Your task to perform on an android device: turn on sleep mode Image 0: 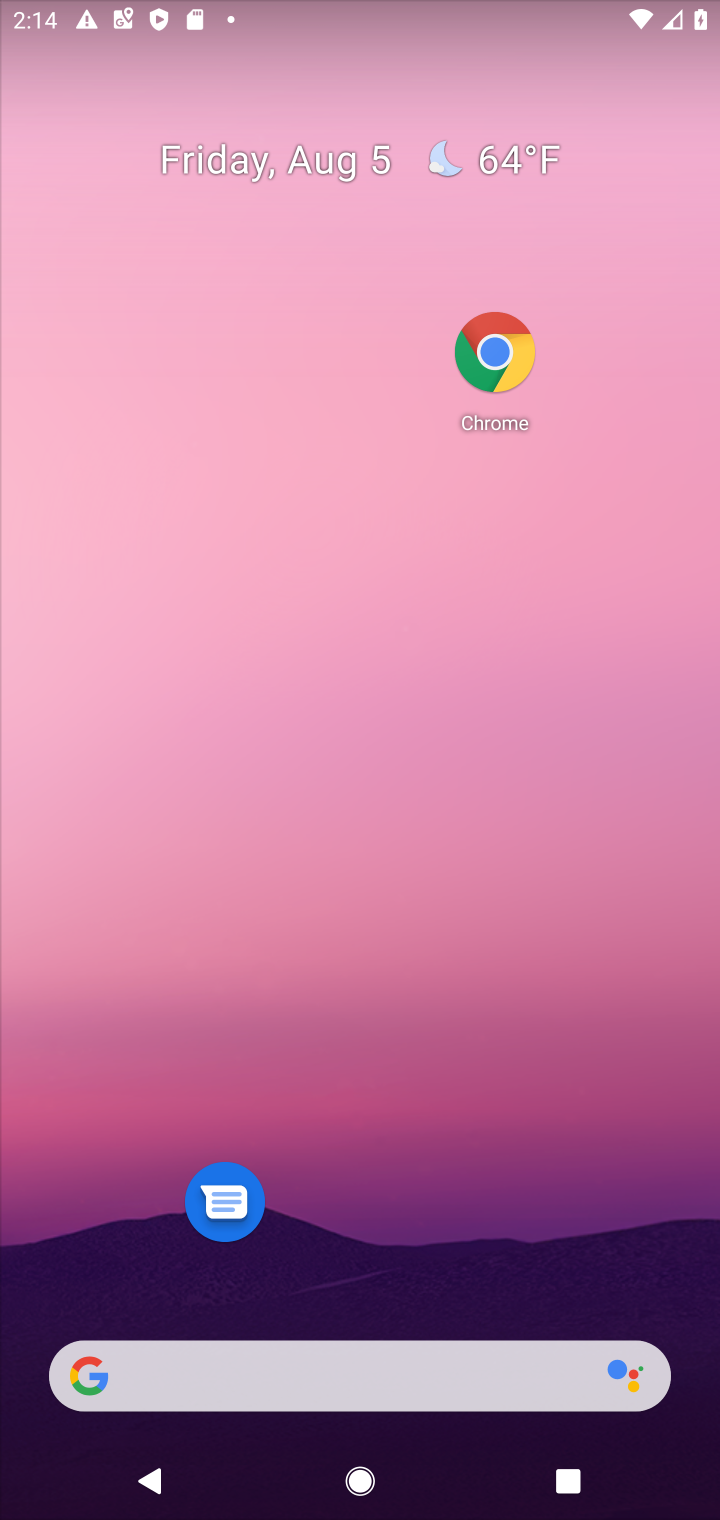
Step 0: drag from (587, 1203) to (488, 83)
Your task to perform on an android device: turn on sleep mode Image 1: 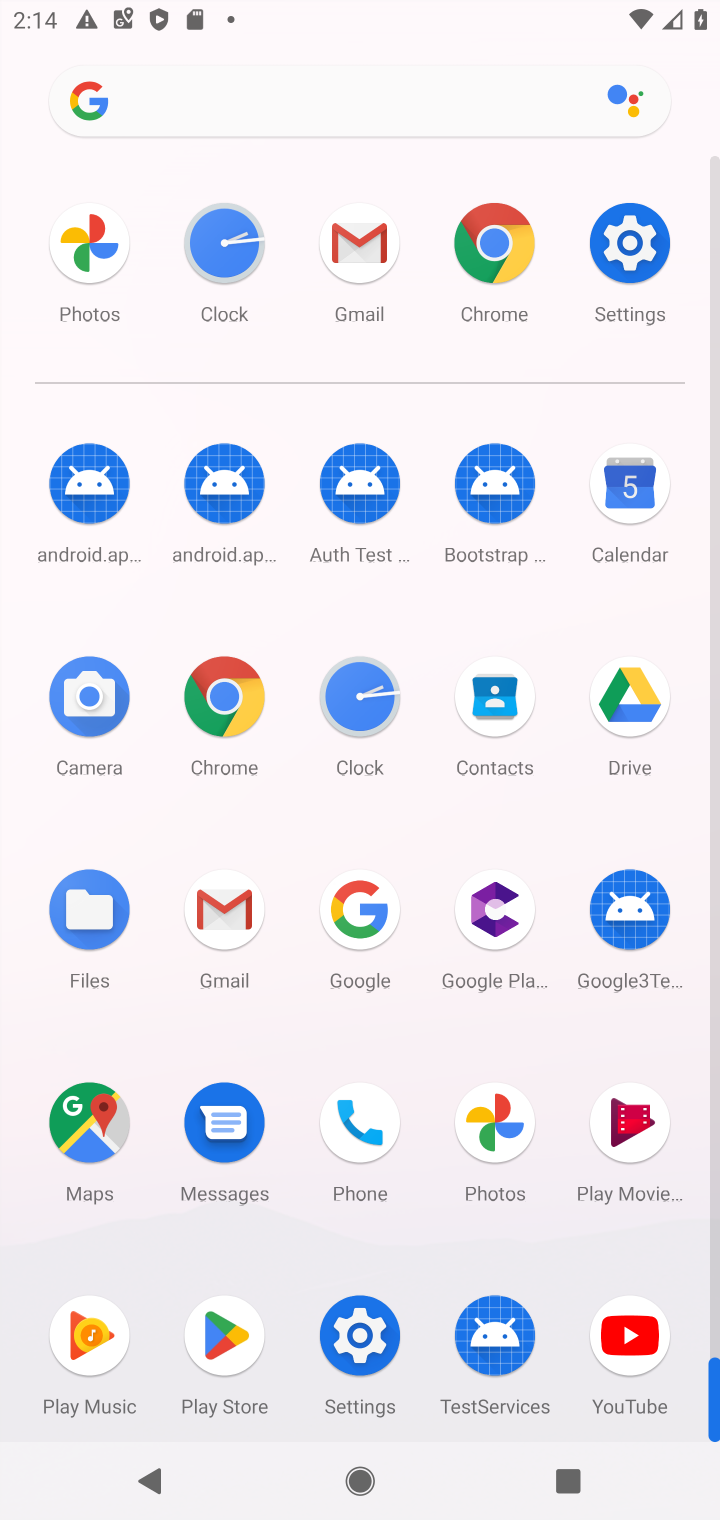
Step 1: click (362, 1319)
Your task to perform on an android device: turn on sleep mode Image 2: 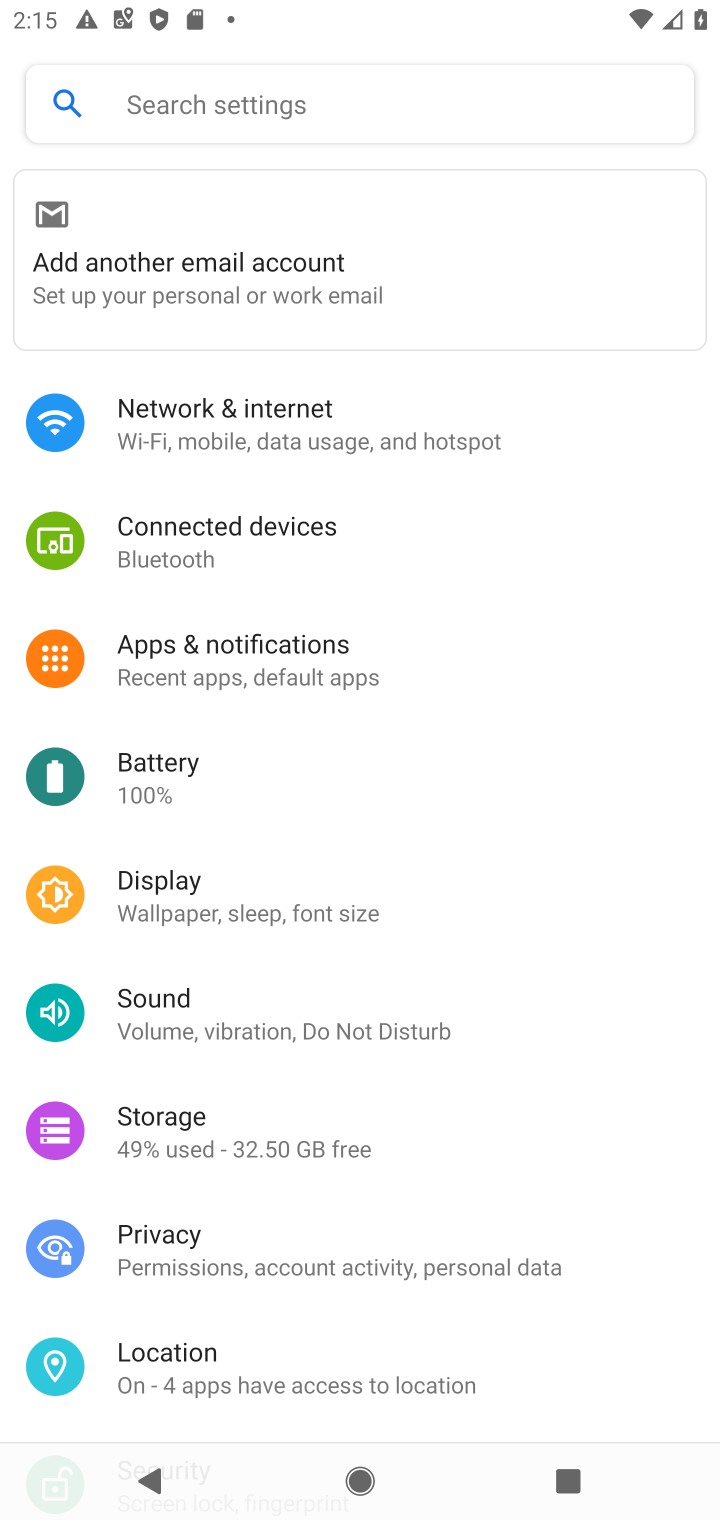
Step 2: click (214, 891)
Your task to perform on an android device: turn on sleep mode Image 3: 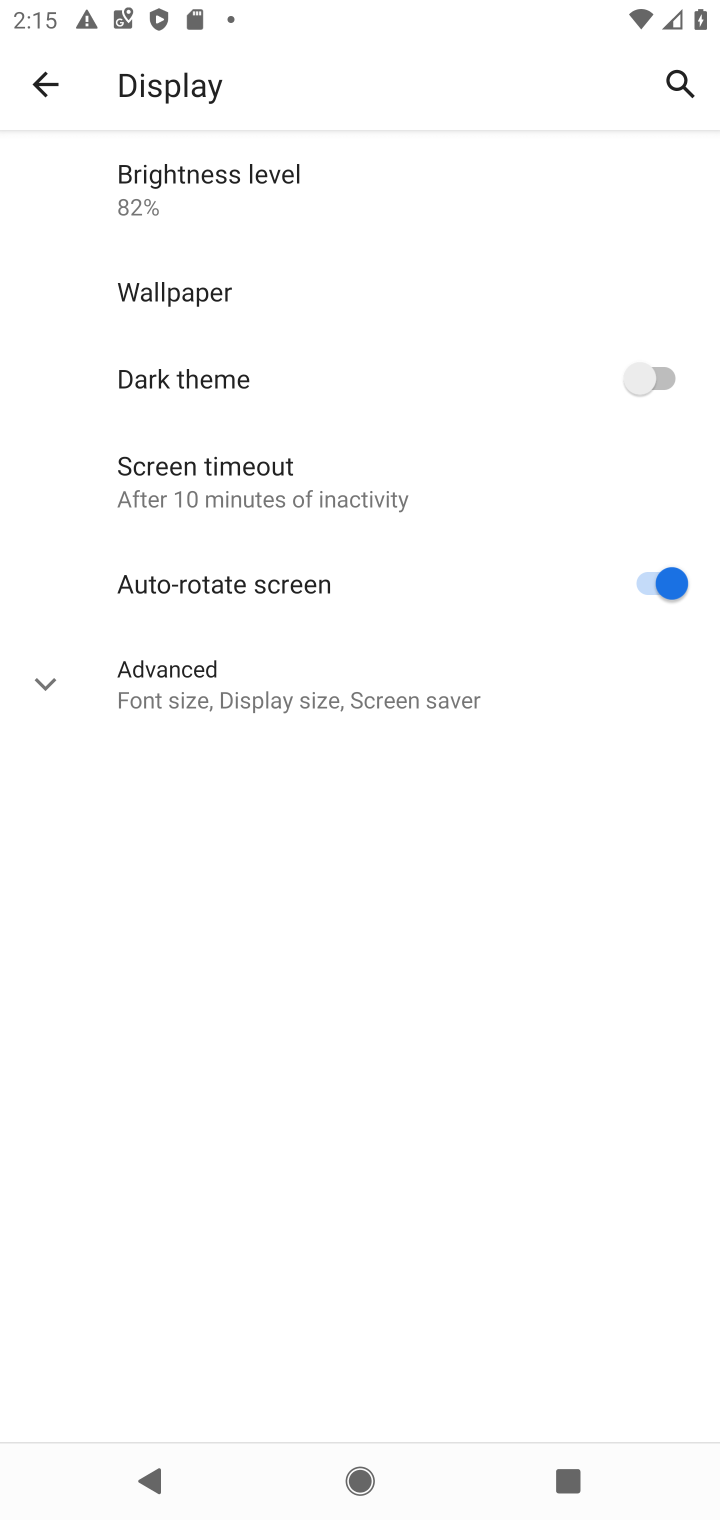
Step 3: click (207, 450)
Your task to perform on an android device: turn on sleep mode Image 4: 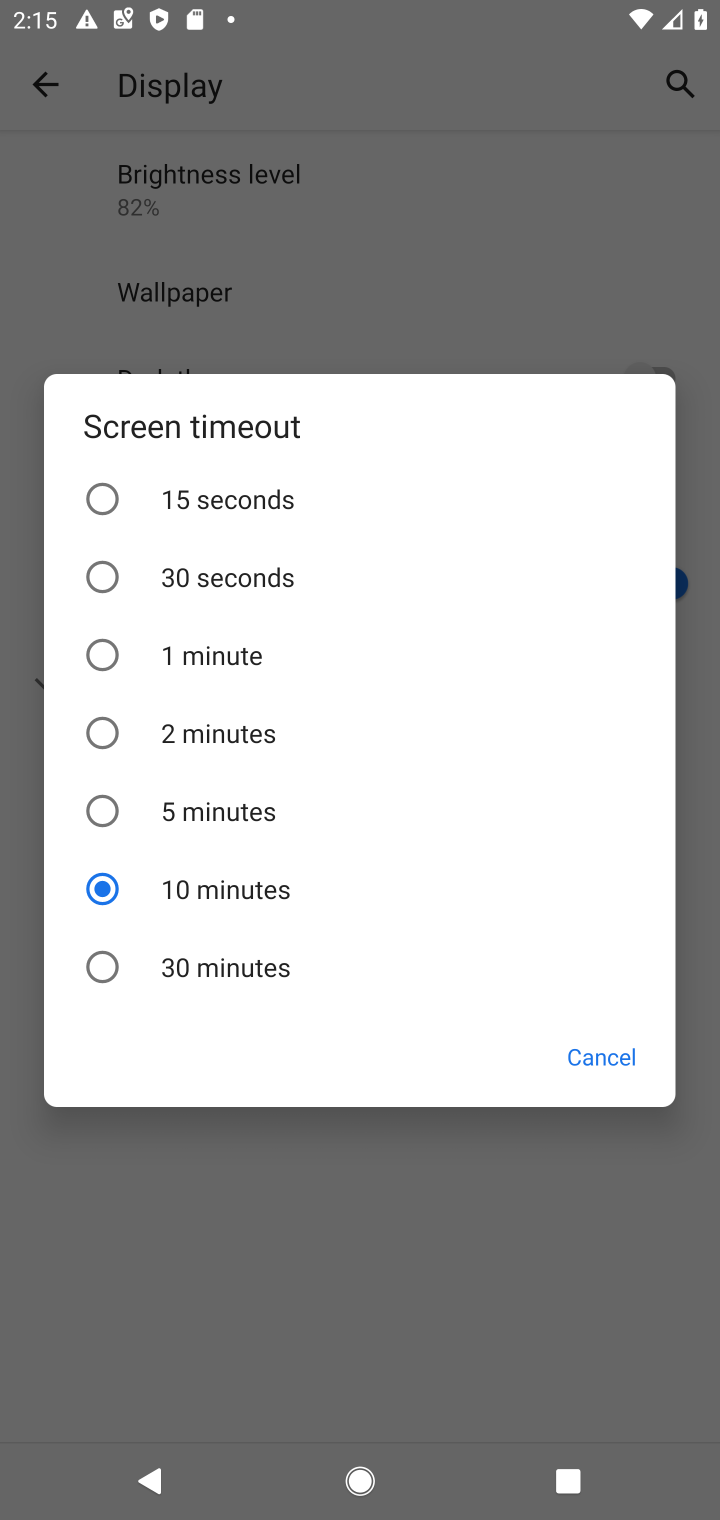
Step 4: task complete